Your task to perform on an android device: Open the Play Movies app and select the watchlist tab. Image 0: 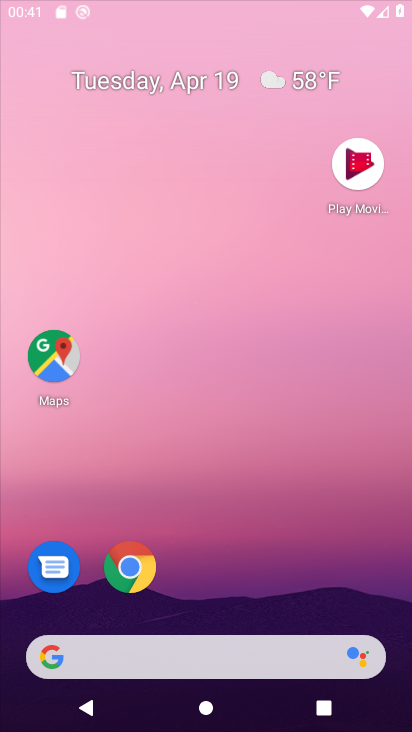
Step 0: click (254, 134)
Your task to perform on an android device: Open the Play Movies app and select the watchlist tab. Image 1: 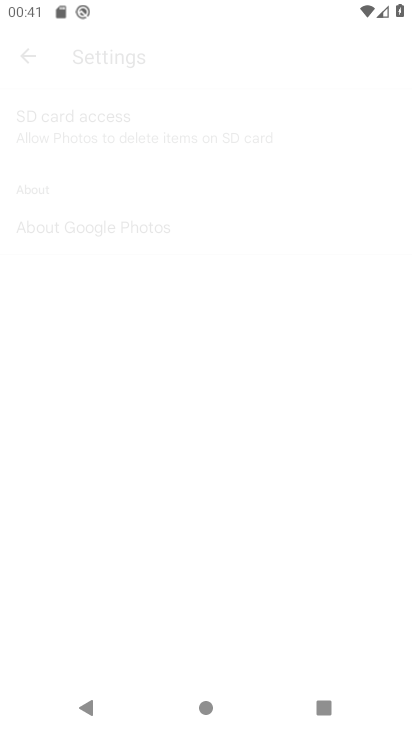
Step 1: drag from (218, 581) to (248, 220)
Your task to perform on an android device: Open the Play Movies app and select the watchlist tab. Image 2: 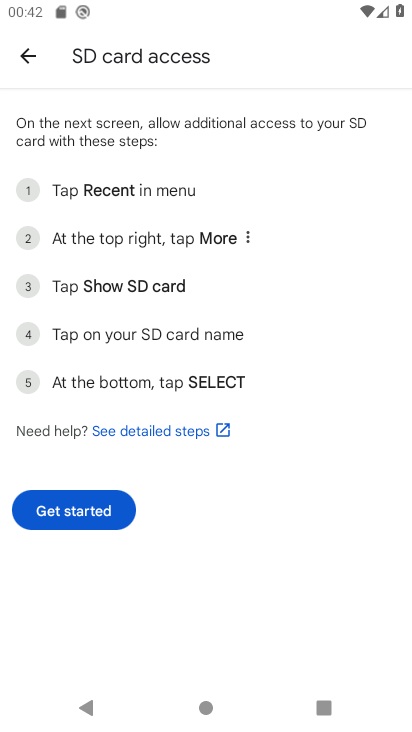
Step 2: press back button
Your task to perform on an android device: Open the Play Movies app and select the watchlist tab. Image 3: 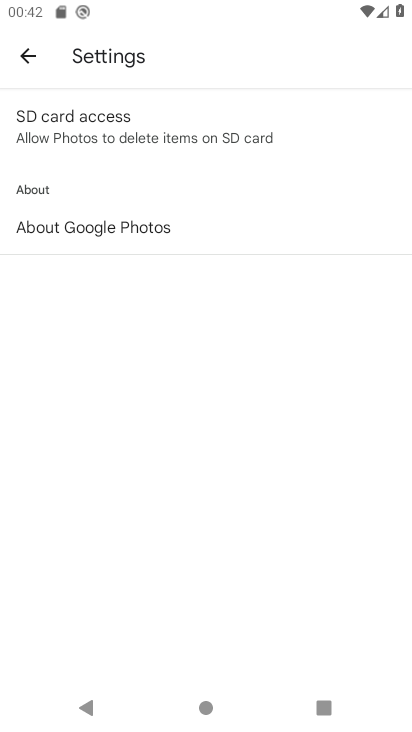
Step 3: press back button
Your task to perform on an android device: Open the Play Movies app and select the watchlist tab. Image 4: 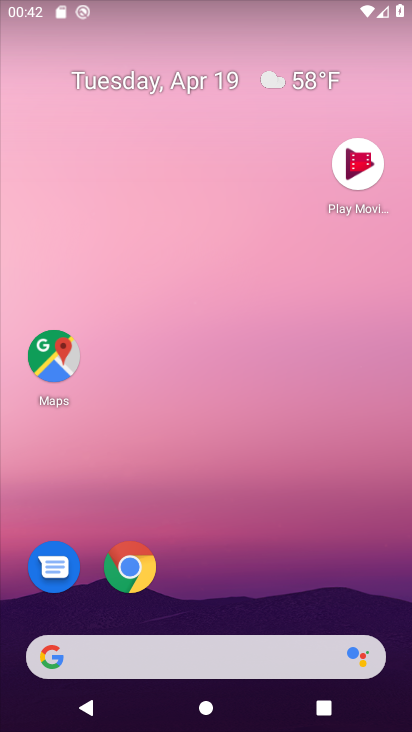
Step 4: drag from (189, 542) to (258, 153)
Your task to perform on an android device: Open the Play Movies app and select the watchlist tab. Image 5: 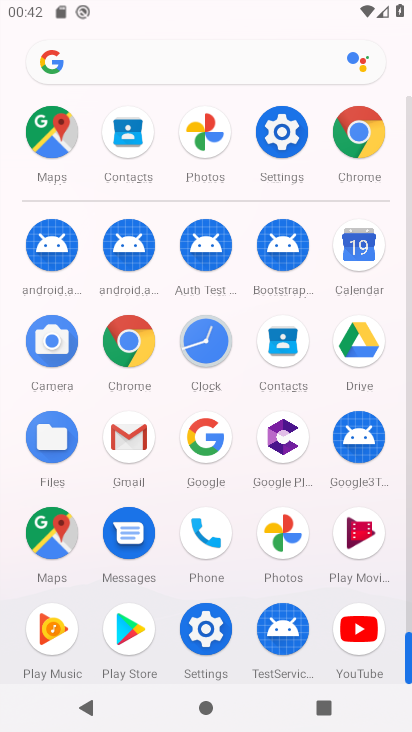
Step 5: drag from (236, 649) to (260, 236)
Your task to perform on an android device: Open the Play Movies app and select the watchlist tab. Image 6: 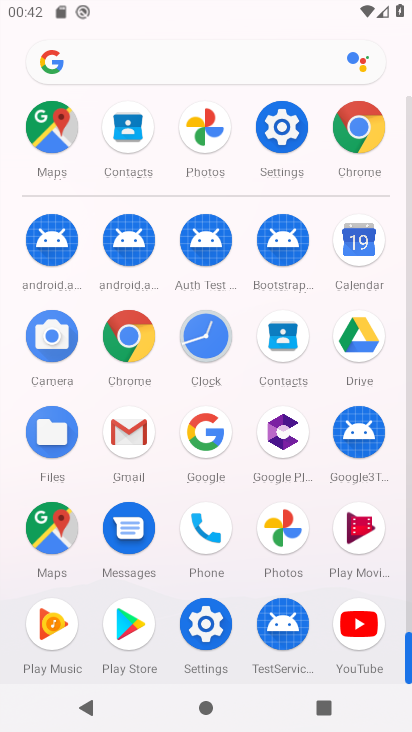
Step 6: click (359, 534)
Your task to perform on an android device: Open the Play Movies app and select the watchlist tab. Image 7: 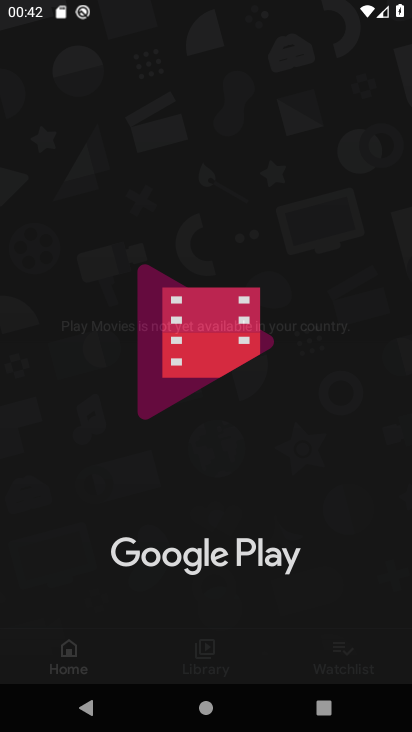
Step 7: drag from (260, 510) to (341, 201)
Your task to perform on an android device: Open the Play Movies app and select the watchlist tab. Image 8: 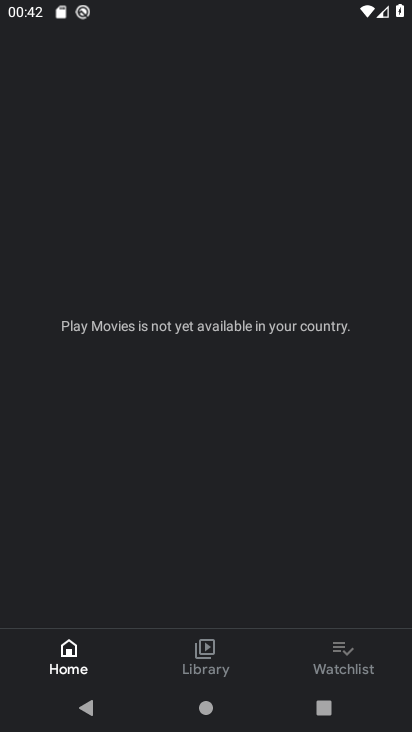
Step 8: click (340, 654)
Your task to perform on an android device: Open the Play Movies app and select the watchlist tab. Image 9: 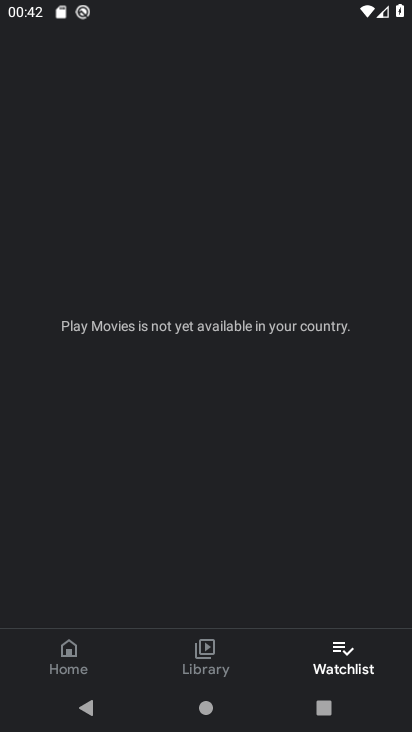
Step 9: drag from (221, 400) to (262, 167)
Your task to perform on an android device: Open the Play Movies app and select the watchlist tab. Image 10: 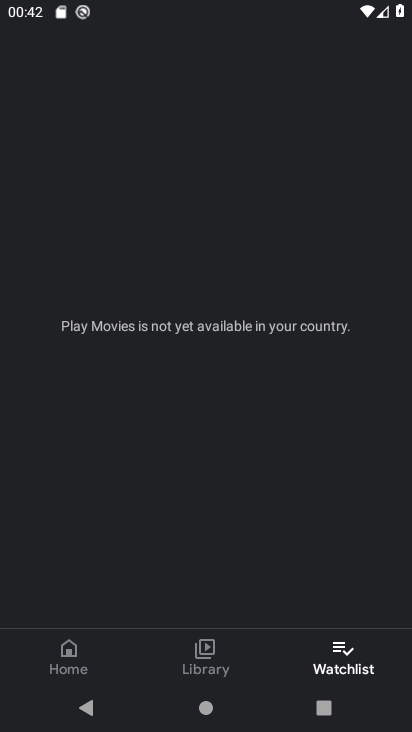
Step 10: drag from (312, 448) to (355, 241)
Your task to perform on an android device: Open the Play Movies app and select the watchlist tab. Image 11: 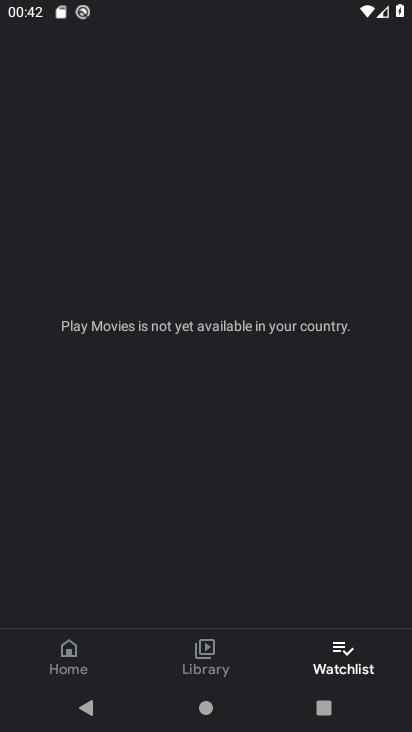
Step 11: click (366, 655)
Your task to perform on an android device: Open the Play Movies app and select the watchlist tab. Image 12: 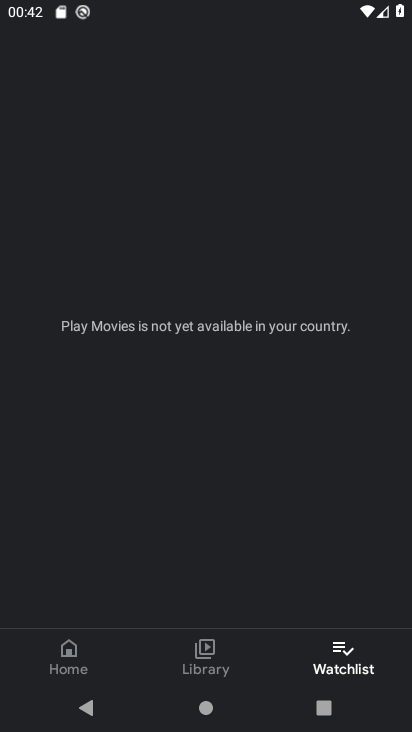
Step 12: task complete